Your task to perform on an android device: set default search engine in the chrome app Image 0: 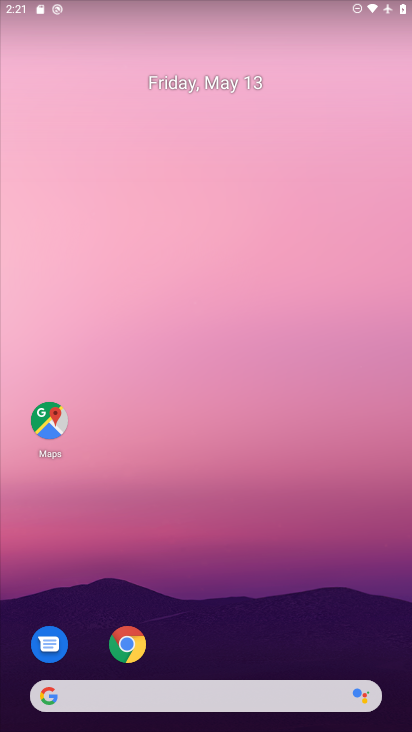
Step 0: drag from (328, 607) to (231, 63)
Your task to perform on an android device: set default search engine in the chrome app Image 1: 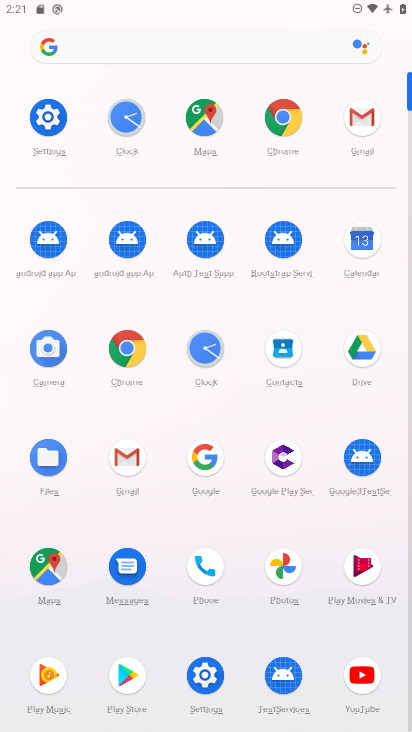
Step 1: click (132, 363)
Your task to perform on an android device: set default search engine in the chrome app Image 2: 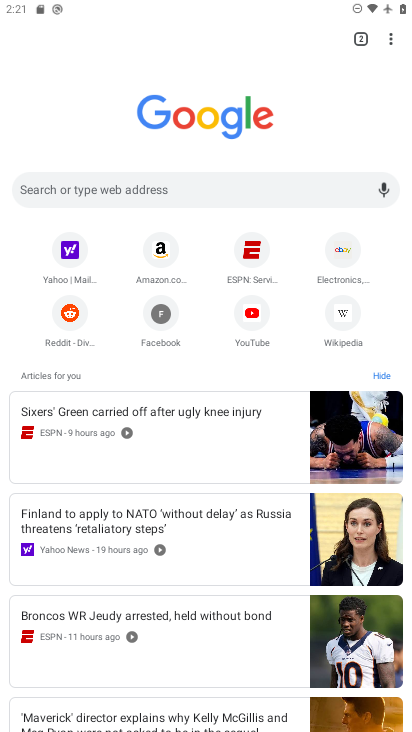
Step 2: click (391, 34)
Your task to perform on an android device: set default search engine in the chrome app Image 3: 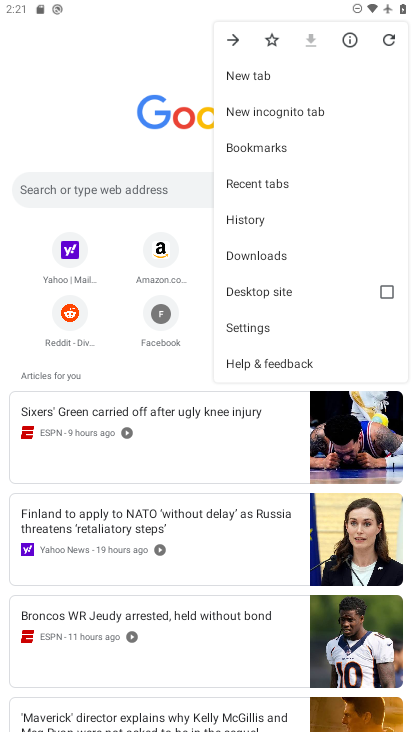
Step 3: click (278, 327)
Your task to perform on an android device: set default search engine in the chrome app Image 4: 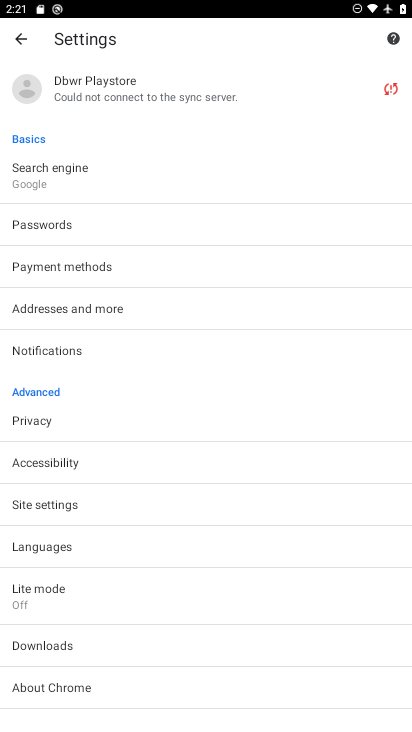
Step 4: click (100, 191)
Your task to perform on an android device: set default search engine in the chrome app Image 5: 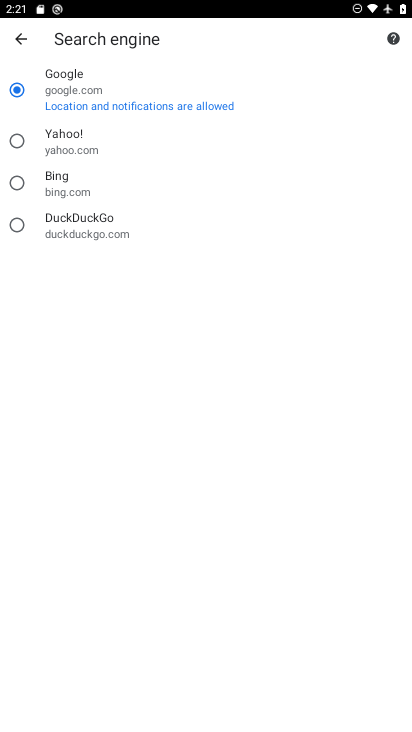
Step 5: click (69, 165)
Your task to perform on an android device: set default search engine in the chrome app Image 6: 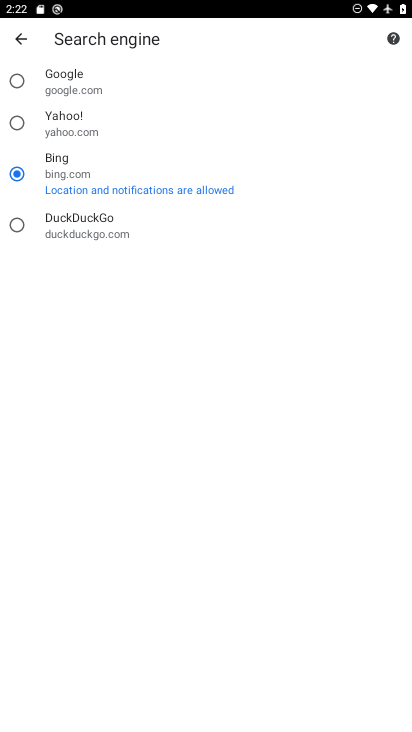
Step 6: task complete